Your task to perform on an android device: Go to Google maps Image 0: 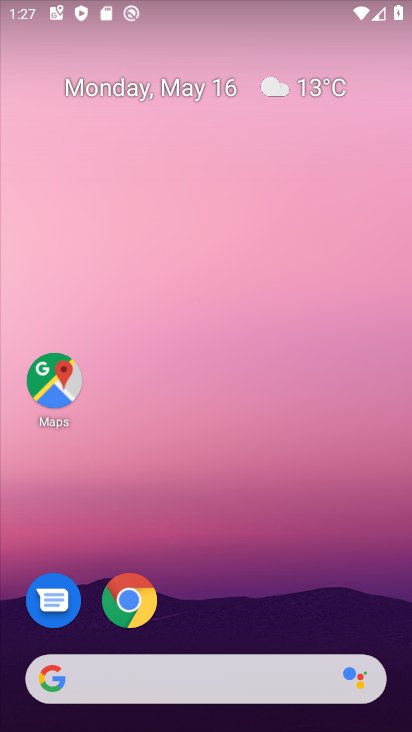
Step 0: click (316, 625)
Your task to perform on an android device: Go to Google maps Image 1: 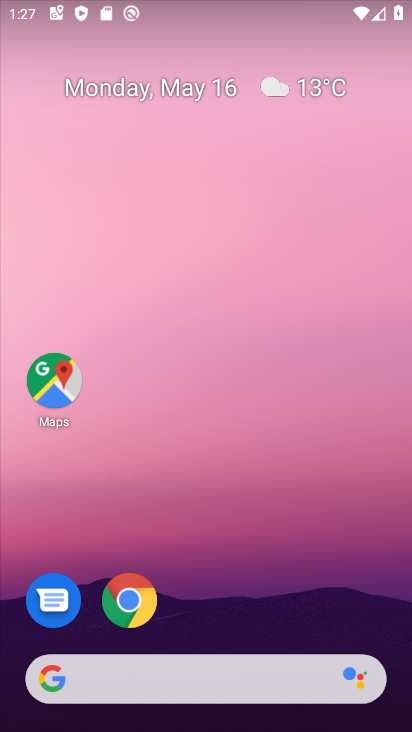
Step 1: click (64, 381)
Your task to perform on an android device: Go to Google maps Image 2: 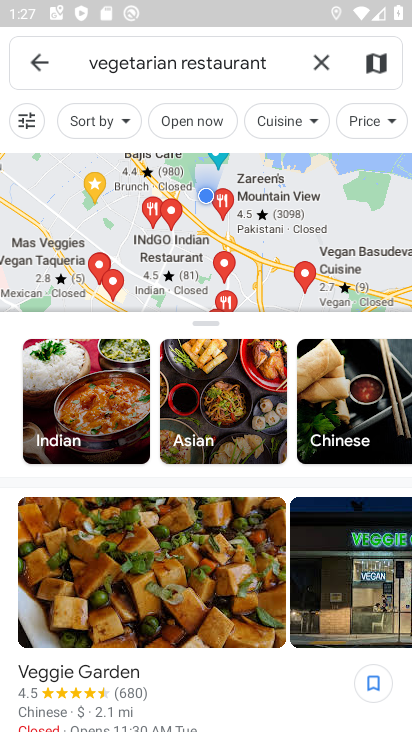
Step 2: task complete